Your task to perform on an android device: open app "Google Play Games" Image 0: 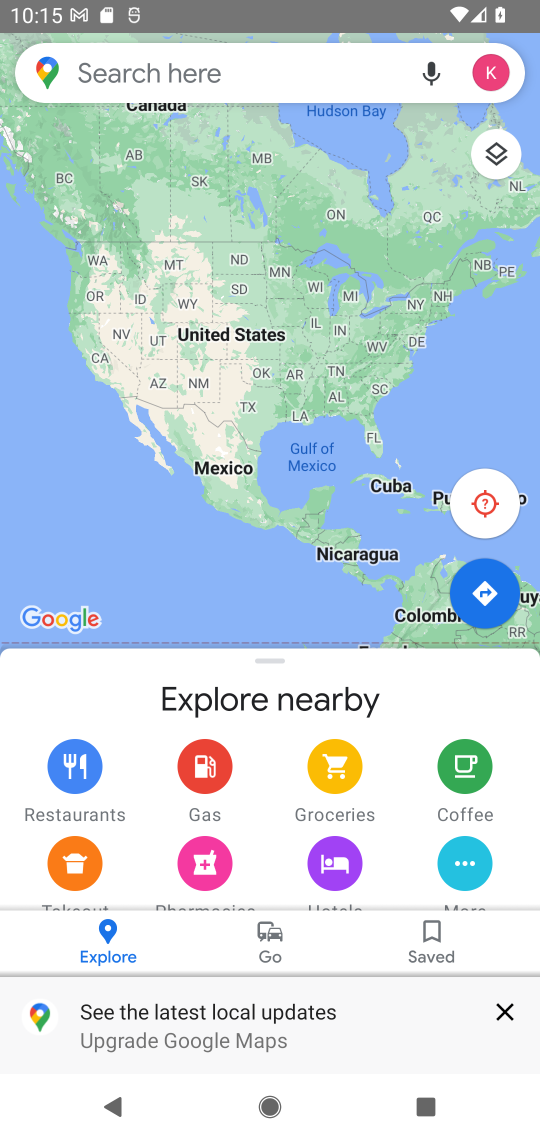
Step 0: task complete